Your task to perform on an android device: create a new album in the google photos Image 0: 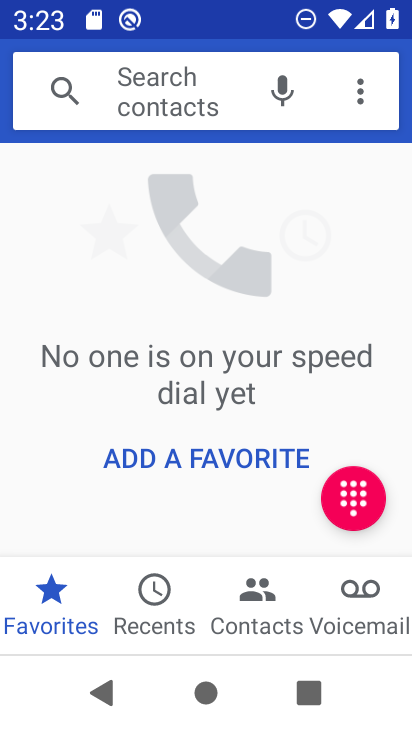
Step 0: press home button
Your task to perform on an android device: create a new album in the google photos Image 1: 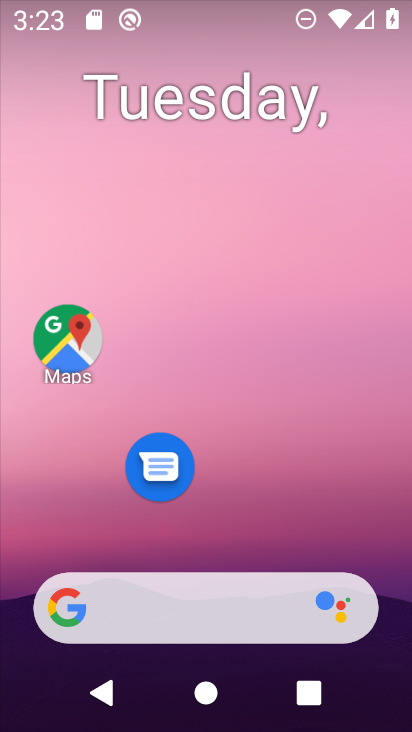
Step 1: drag from (253, 498) to (281, 56)
Your task to perform on an android device: create a new album in the google photos Image 2: 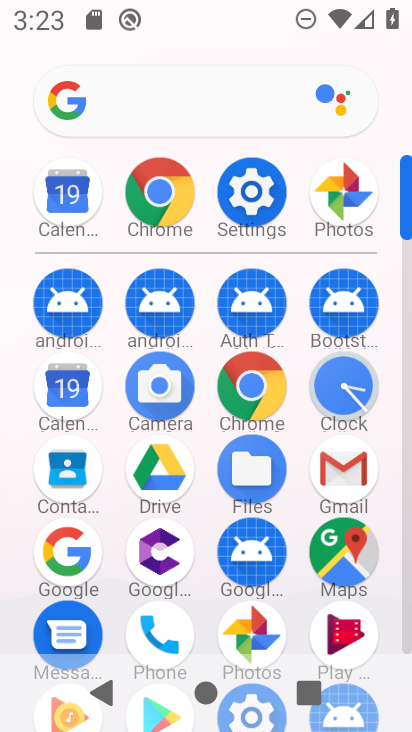
Step 2: click (241, 633)
Your task to perform on an android device: create a new album in the google photos Image 3: 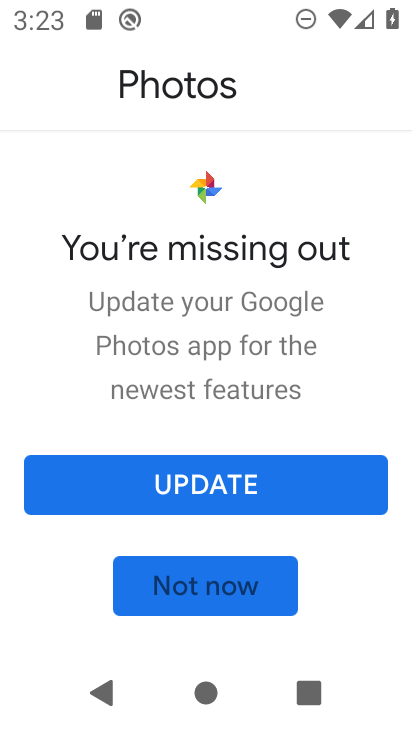
Step 3: click (273, 497)
Your task to perform on an android device: create a new album in the google photos Image 4: 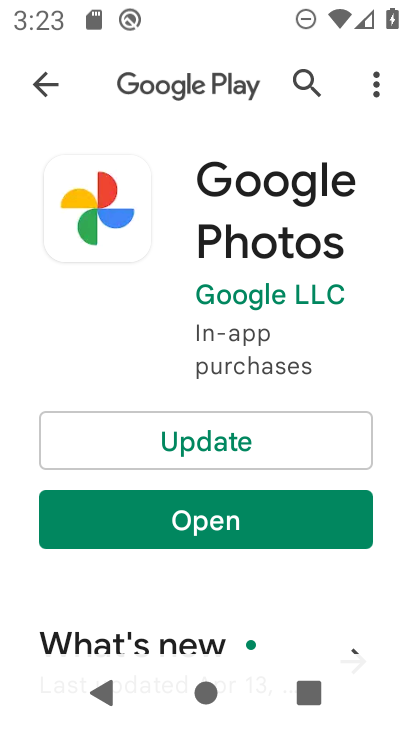
Step 4: click (301, 429)
Your task to perform on an android device: create a new album in the google photos Image 5: 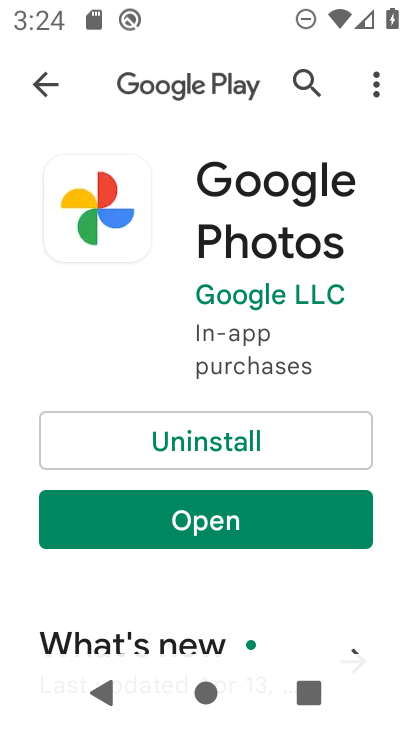
Step 5: click (236, 524)
Your task to perform on an android device: create a new album in the google photos Image 6: 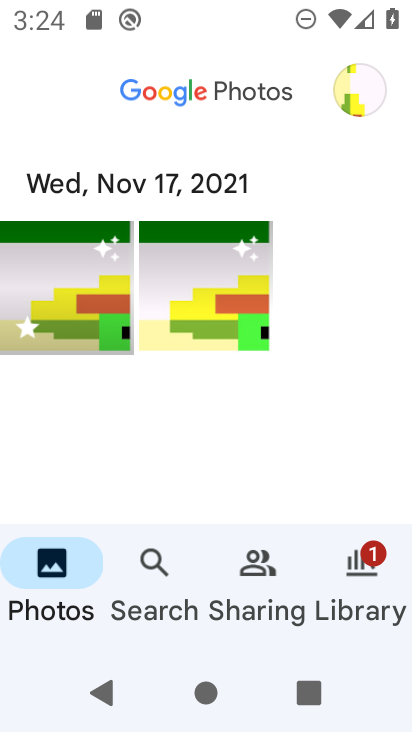
Step 6: click (339, 583)
Your task to perform on an android device: create a new album in the google photos Image 7: 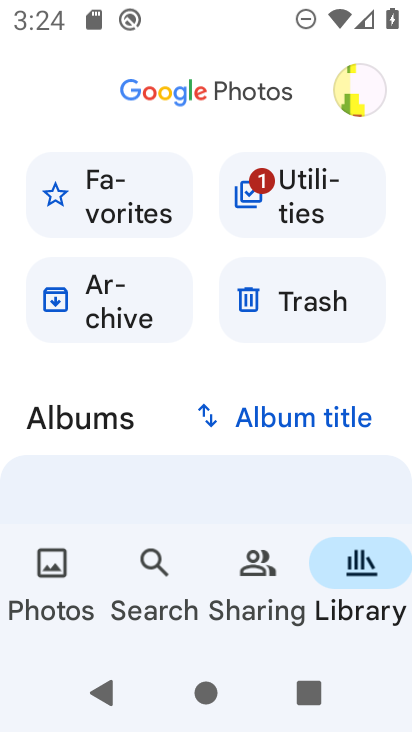
Step 7: drag from (187, 443) to (184, 167)
Your task to perform on an android device: create a new album in the google photos Image 8: 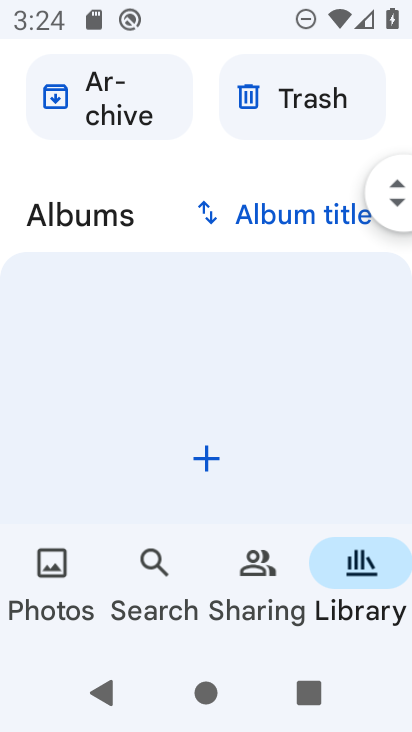
Step 8: click (185, 456)
Your task to perform on an android device: create a new album in the google photos Image 9: 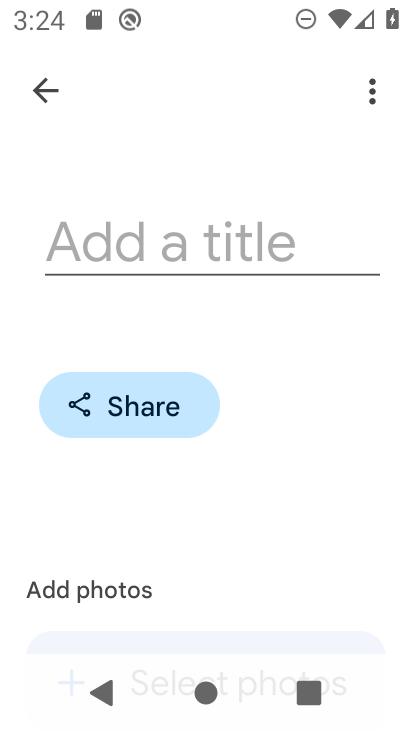
Step 9: click (153, 249)
Your task to perform on an android device: create a new album in the google photos Image 10: 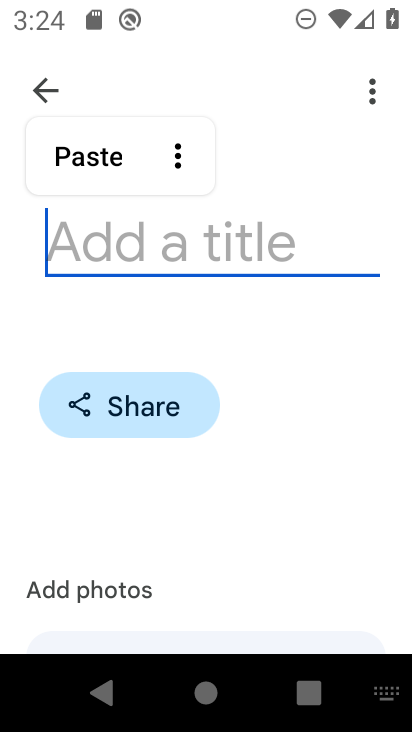
Step 10: type "asdfghjkl"
Your task to perform on an android device: create a new album in the google photos Image 11: 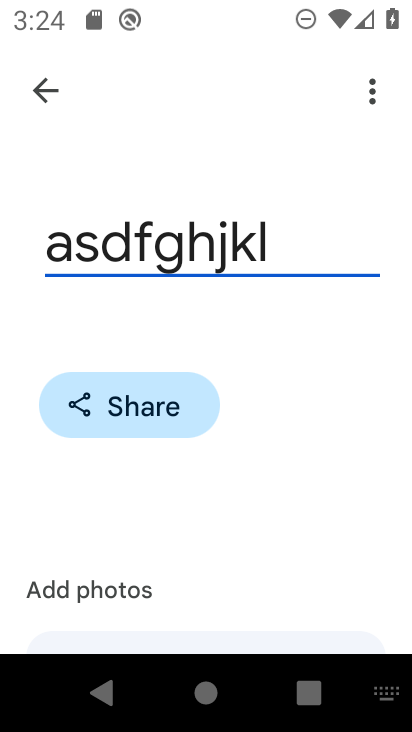
Step 11: drag from (235, 504) to (227, 215)
Your task to perform on an android device: create a new album in the google photos Image 12: 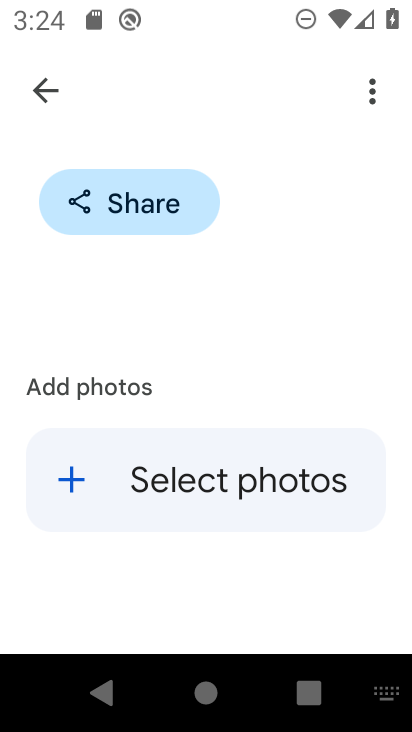
Step 12: click (234, 472)
Your task to perform on an android device: create a new album in the google photos Image 13: 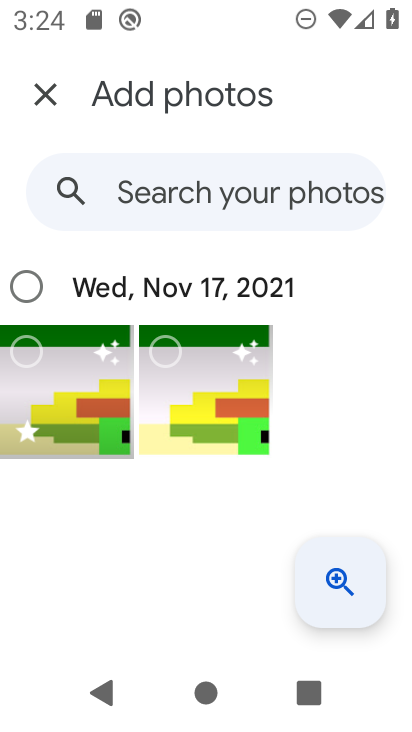
Step 13: click (69, 391)
Your task to perform on an android device: create a new album in the google photos Image 14: 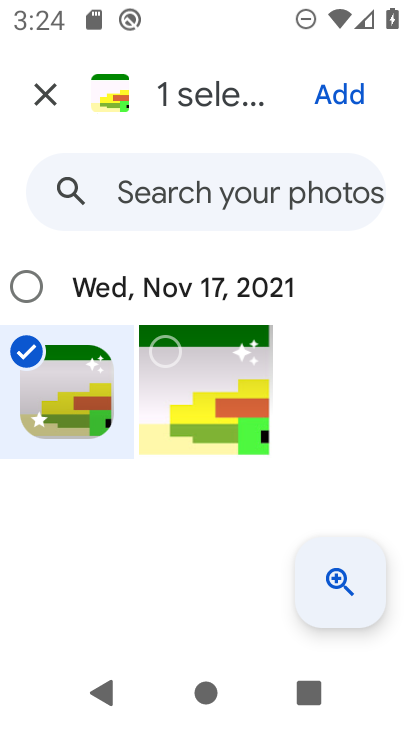
Step 14: click (316, 90)
Your task to perform on an android device: create a new album in the google photos Image 15: 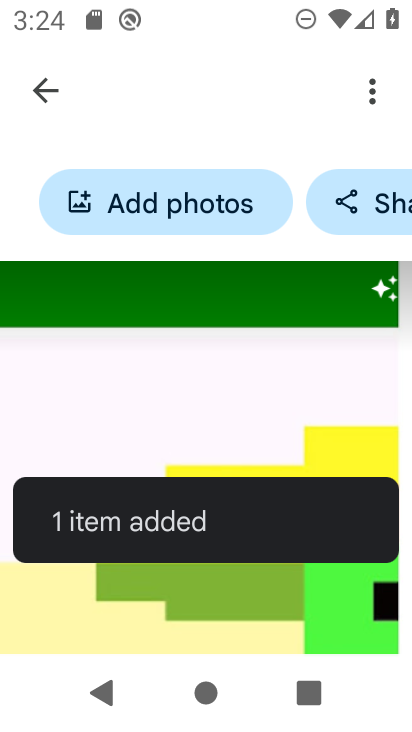
Step 15: task complete